Your task to perform on an android device: Do I have any events today? Image 0: 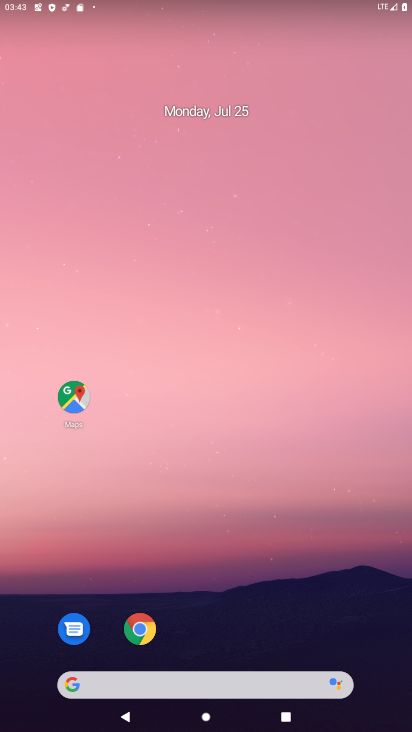
Step 0: drag from (295, 614) to (344, 1)
Your task to perform on an android device: Do I have any events today? Image 1: 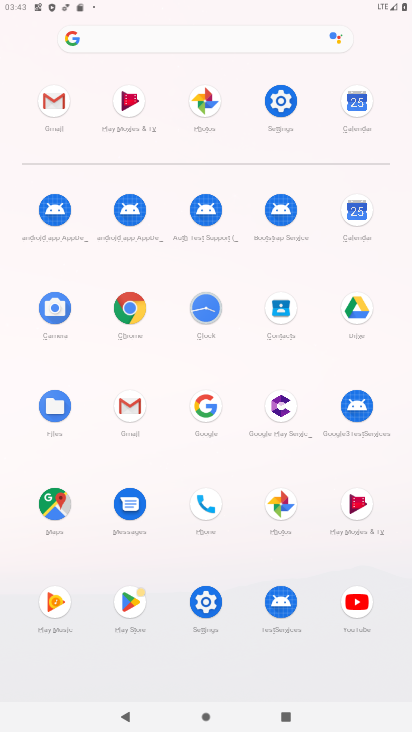
Step 1: click (364, 147)
Your task to perform on an android device: Do I have any events today? Image 2: 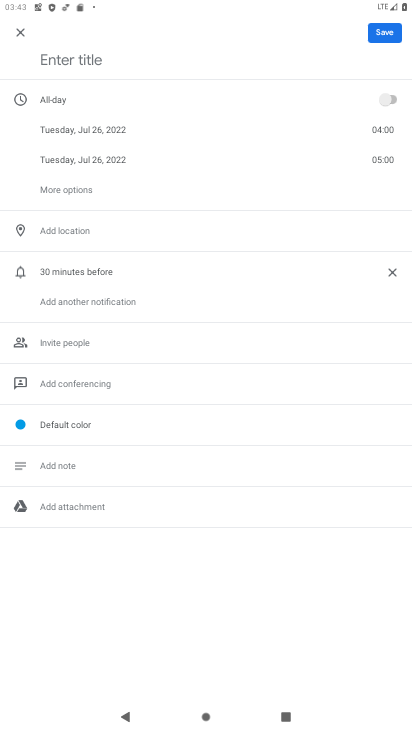
Step 2: click (21, 37)
Your task to perform on an android device: Do I have any events today? Image 3: 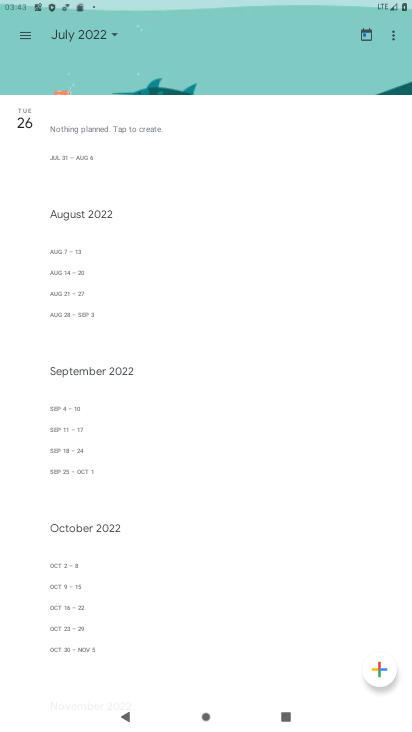
Step 3: click (113, 33)
Your task to perform on an android device: Do I have any events today? Image 4: 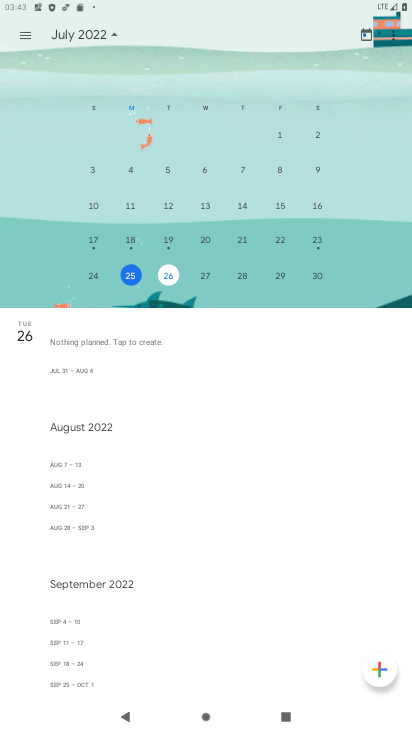
Step 4: click (127, 281)
Your task to perform on an android device: Do I have any events today? Image 5: 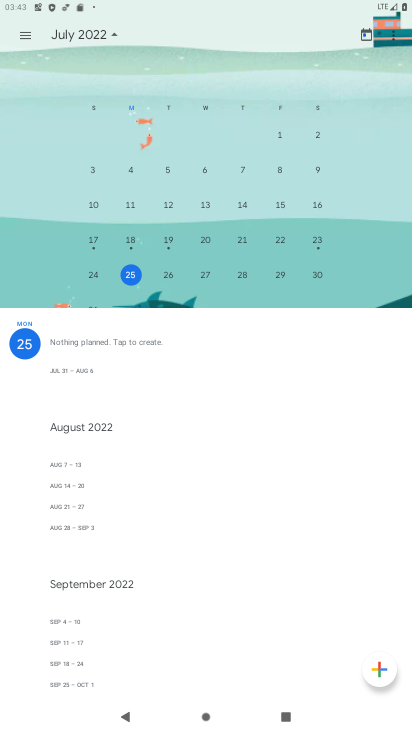
Step 5: click (22, 34)
Your task to perform on an android device: Do I have any events today? Image 6: 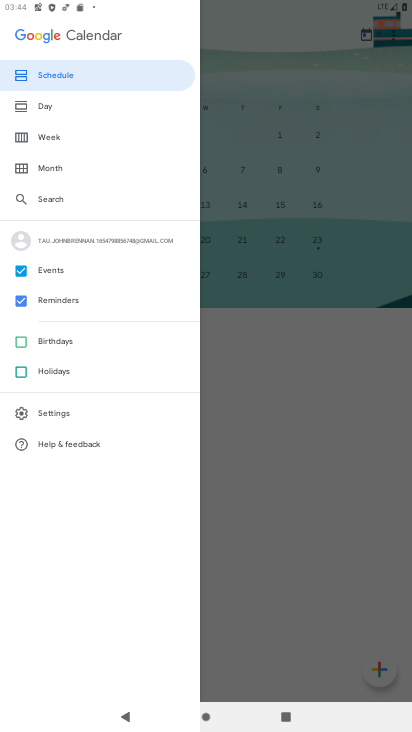
Step 6: click (43, 111)
Your task to perform on an android device: Do I have any events today? Image 7: 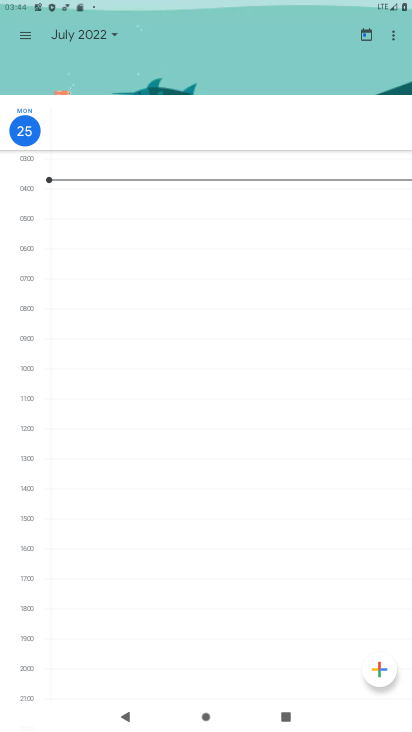
Step 7: task complete